Your task to perform on an android device: turn on javascript in the chrome app Image 0: 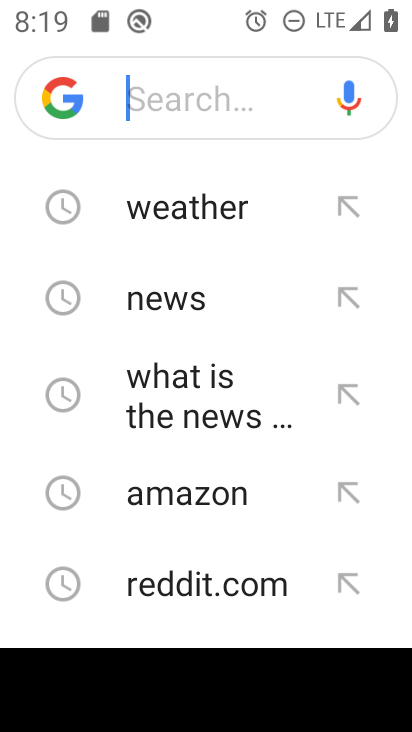
Step 0: press home button
Your task to perform on an android device: turn on javascript in the chrome app Image 1: 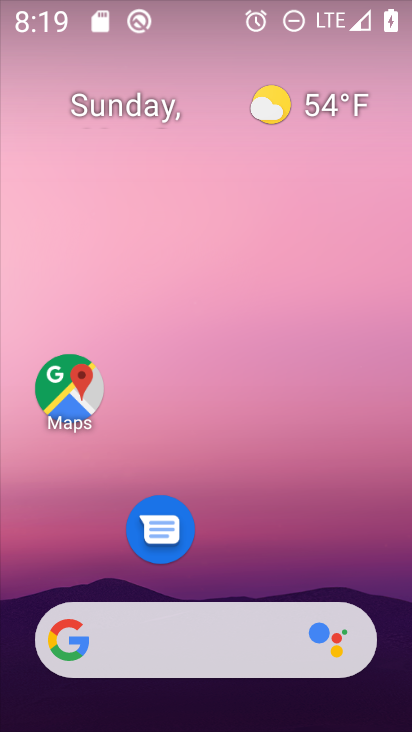
Step 1: drag from (240, 581) to (286, 100)
Your task to perform on an android device: turn on javascript in the chrome app Image 2: 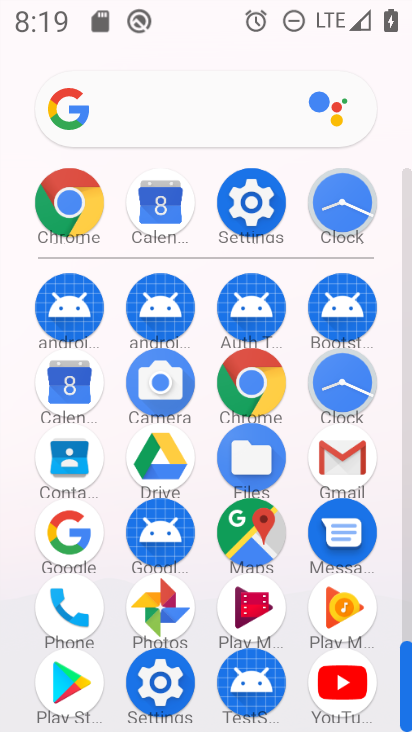
Step 2: click (72, 222)
Your task to perform on an android device: turn on javascript in the chrome app Image 3: 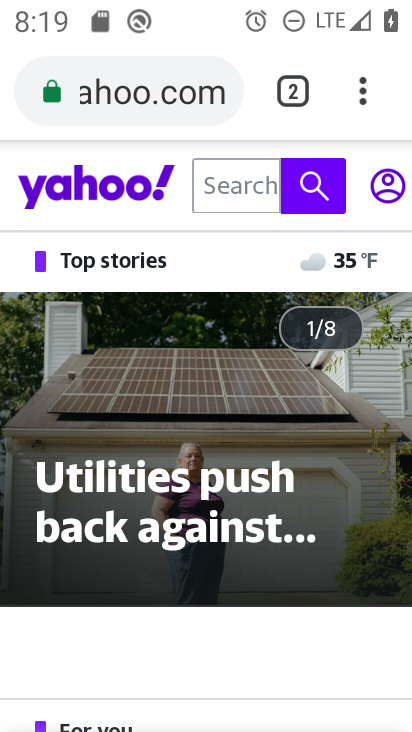
Step 3: click (360, 106)
Your task to perform on an android device: turn on javascript in the chrome app Image 4: 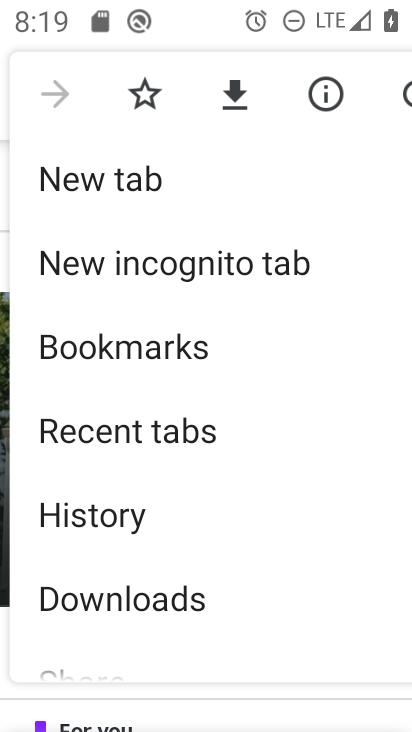
Step 4: drag from (176, 507) to (179, 326)
Your task to perform on an android device: turn on javascript in the chrome app Image 5: 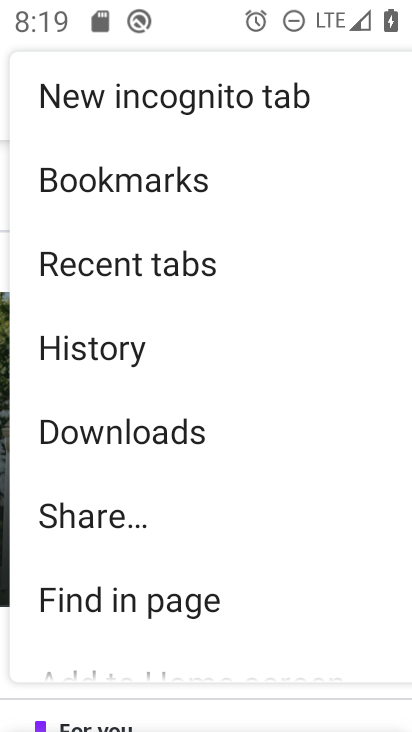
Step 5: drag from (83, 624) to (118, 255)
Your task to perform on an android device: turn on javascript in the chrome app Image 6: 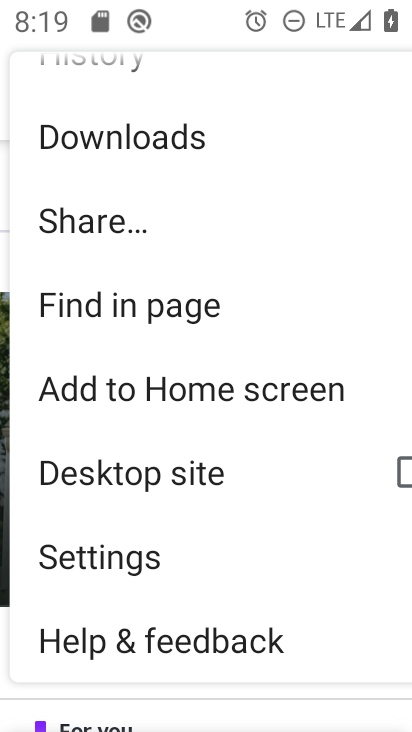
Step 6: click (114, 568)
Your task to perform on an android device: turn on javascript in the chrome app Image 7: 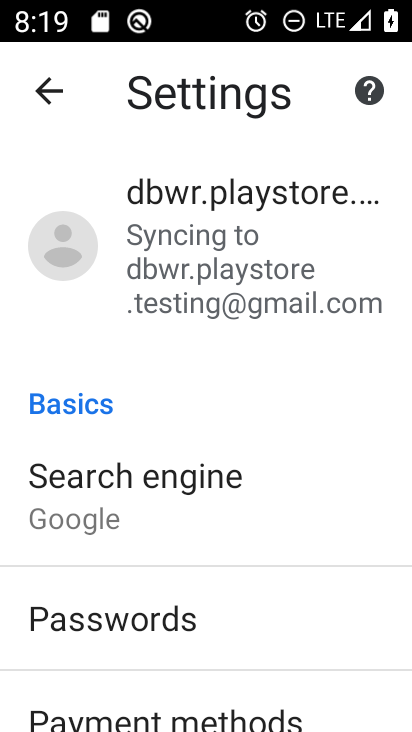
Step 7: drag from (166, 615) to (181, 322)
Your task to perform on an android device: turn on javascript in the chrome app Image 8: 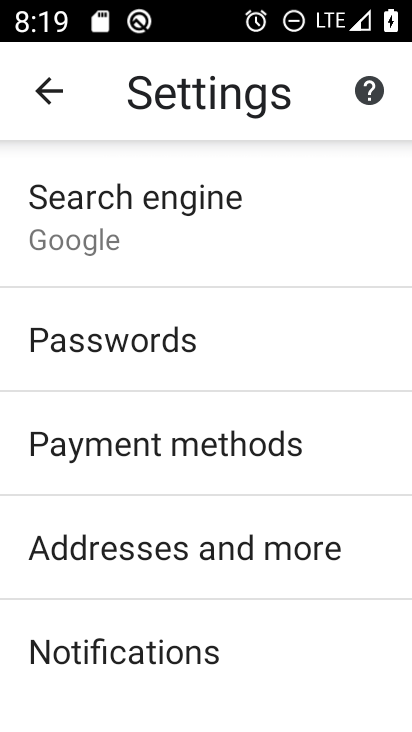
Step 8: drag from (165, 572) to (187, 327)
Your task to perform on an android device: turn on javascript in the chrome app Image 9: 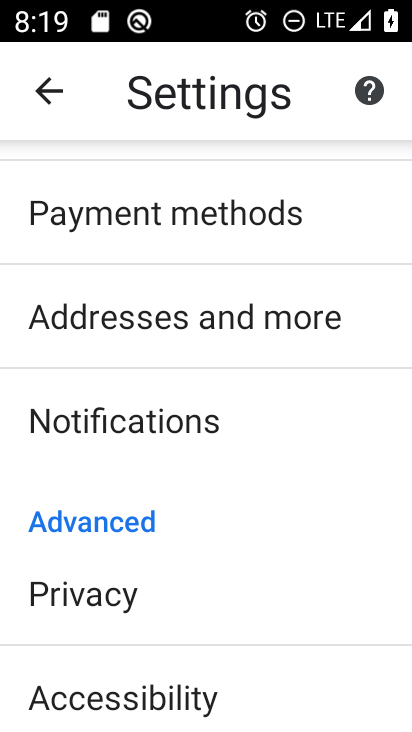
Step 9: drag from (166, 597) to (159, 345)
Your task to perform on an android device: turn on javascript in the chrome app Image 10: 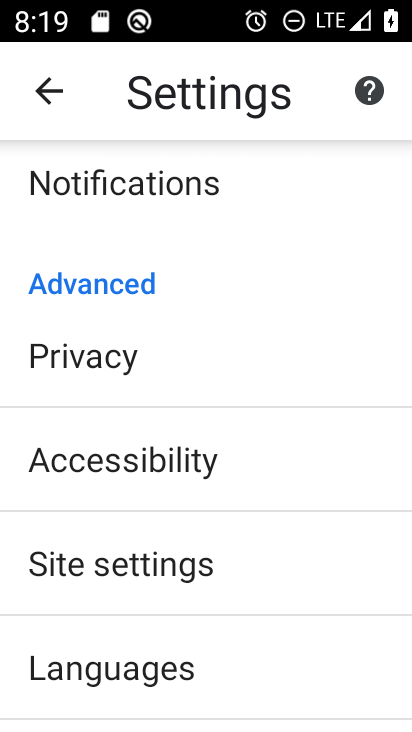
Step 10: click (140, 572)
Your task to perform on an android device: turn on javascript in the chrome app Image 11: 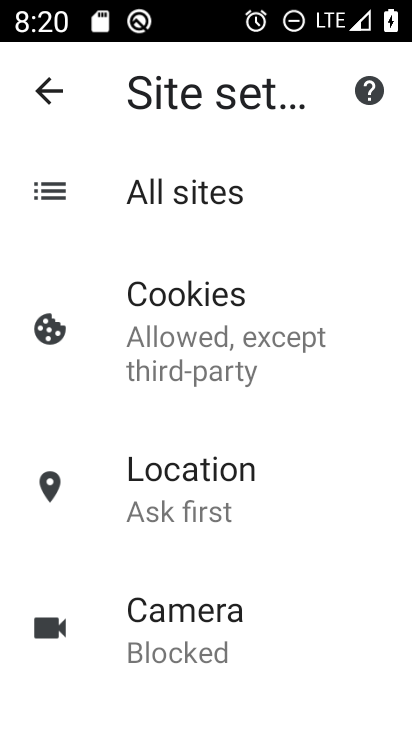
Step 11: drag from (157, 639) to (230, 260)
Your task to perform on an android device: turn on javascript in the chrome app Image 12: 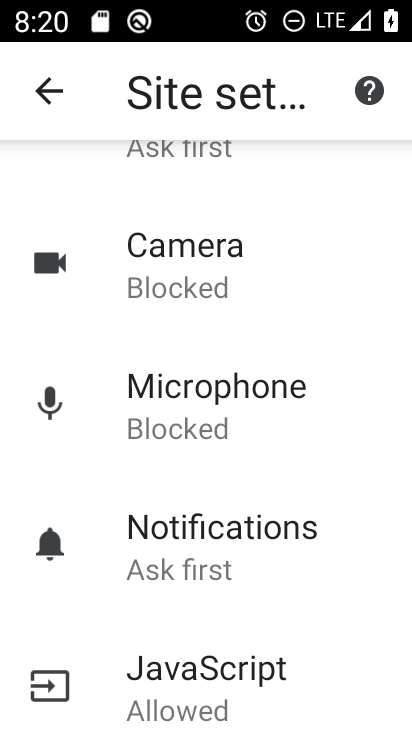
Step 12: click (187, 672)
Your task to perform on an android device: turn on javascript in the chrome app Image 13: 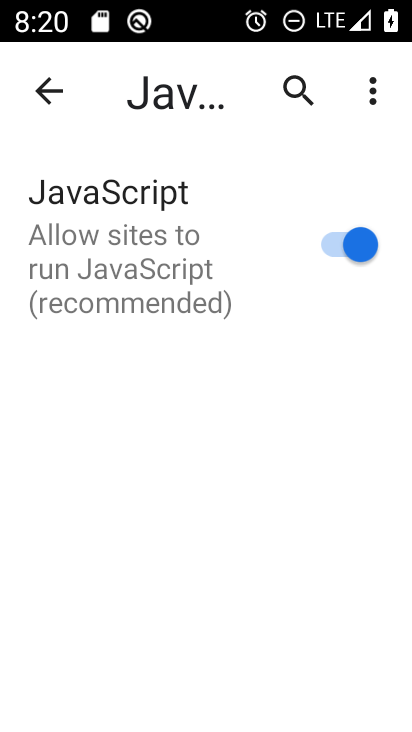
Step 13: task complete